Your task to perform on an android device: Is it going to rain tomorrow? Image 0: 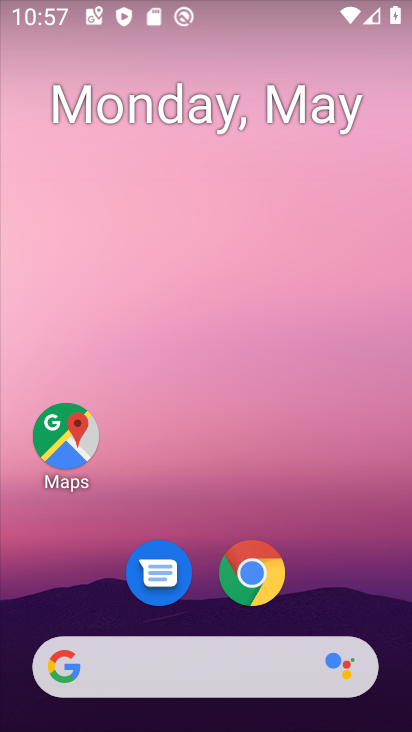
Step 0: drag from (329, 585) to (210, 50)
Your task to perform on an android device: Is it going to rain tomorrow? Image 1: 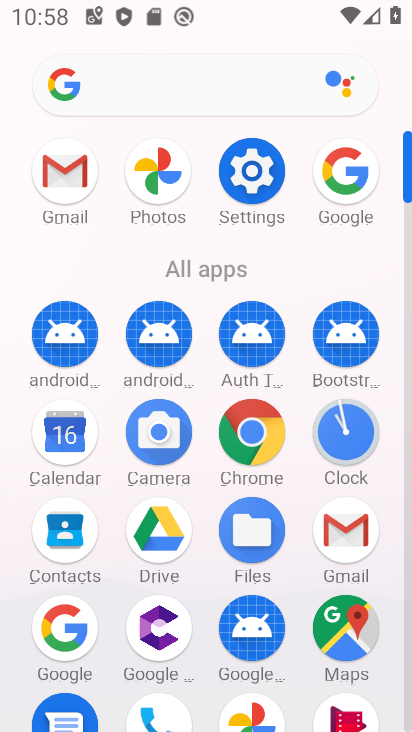
Step 1: click (62, 630)
Your task to perform on an android device: Is it going to rain tomorrow? Image 2: 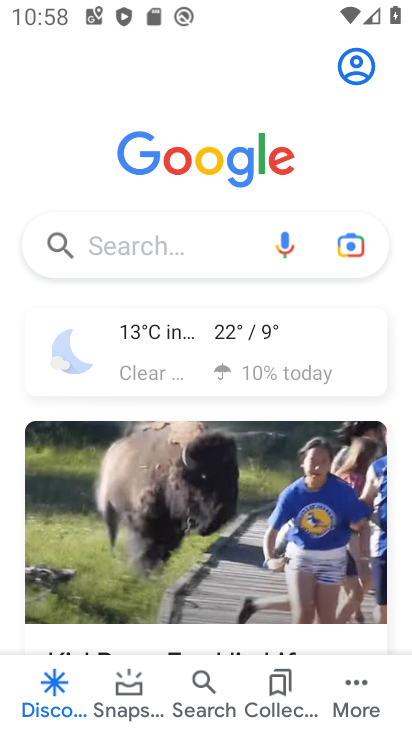
Step 2: click (263, 366)
Your task to perform on an android device: Is it going to rain tomorrow? Image 3: 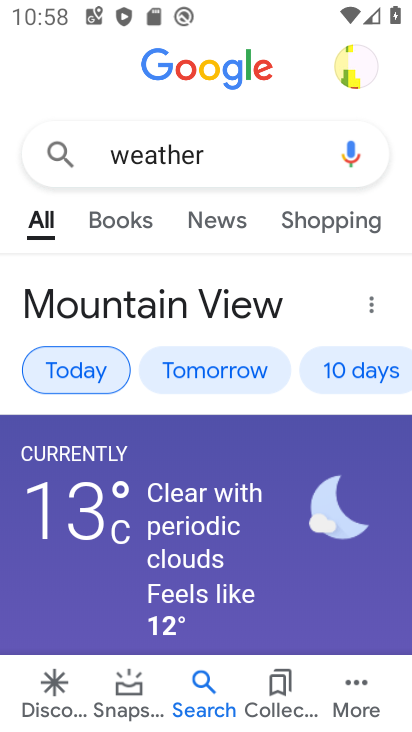
Step 3: click (212, 367)
Your task to perform on an android device: Is it going to rain tomorrow? Image 4: 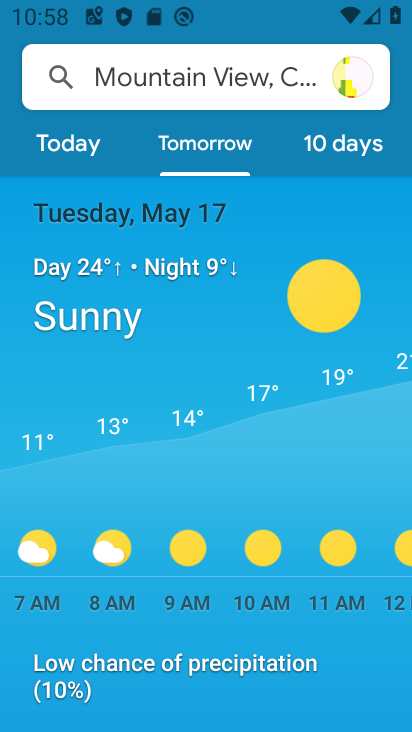
Step 4: task complete